Your task to perform on an android device: turn pop-ups on in chrome Image 0: 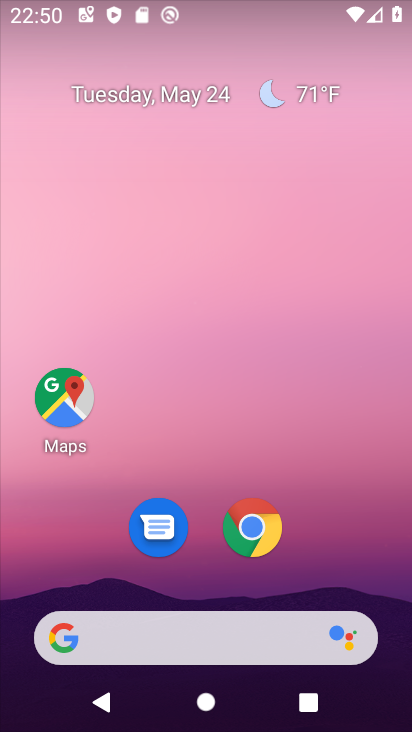
Step 0: click (239, 527)
Your task to perform on an android device: turn pop-ups on in chrome Image 1: 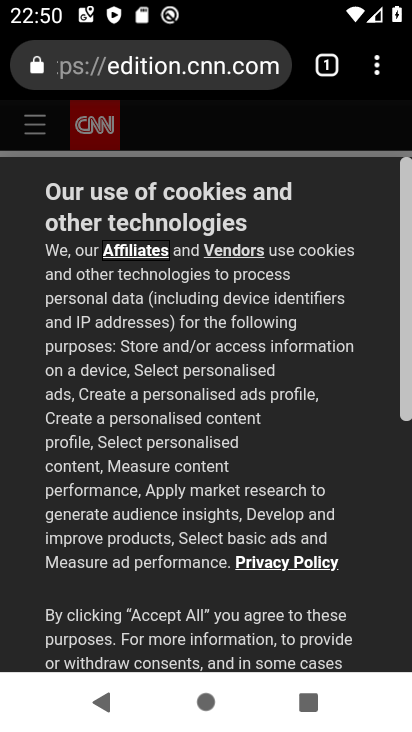
Step 1: click (370, 72)
Your task to perform on an android device: turn pop-ups on in chrome Image 2: 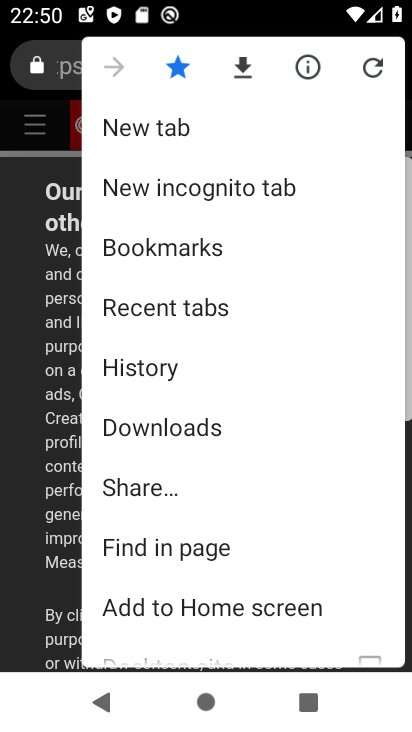
Step 2: drag from (209, 581) to (206, 344)
Your task to perform on an android device: turn pop-ups on in chrome Image 3: 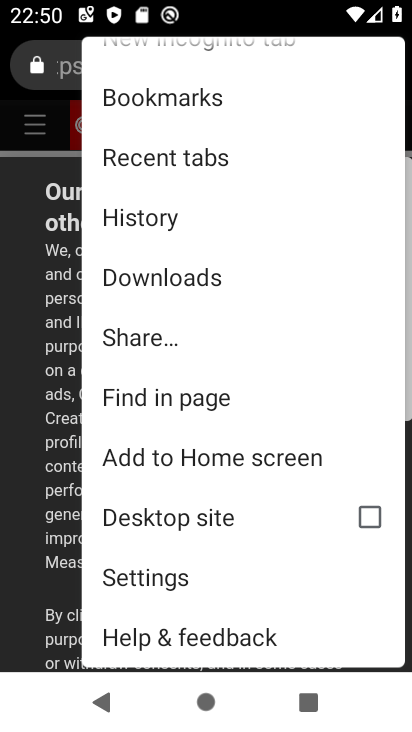
Step 3: click (190, 591)
Your task to perform on an android device: turn pop-ups on in chrome Image 4: 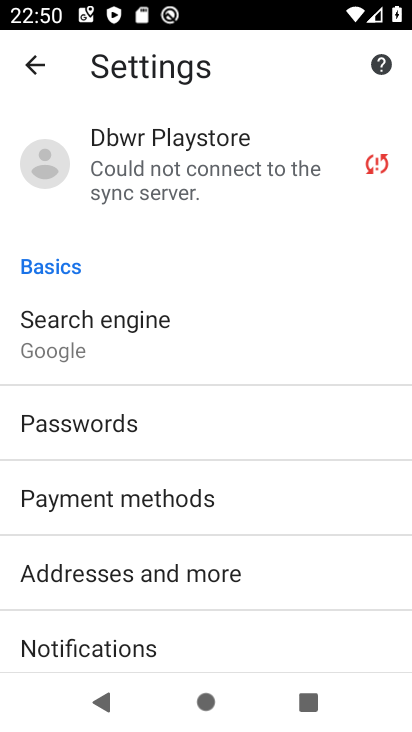
Step 4: drag from (159, 638) to (120, 402)
Your task to perform on an android device: turn pop-ups on in chrome Image 5: 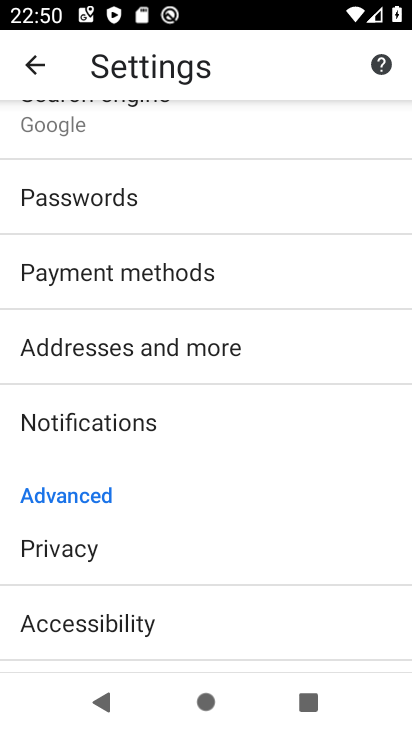
Step 5: drag from (84, 631) to (81, 292)
Your task to perform on an android device: turn pop-ups on in chrome Image 6: 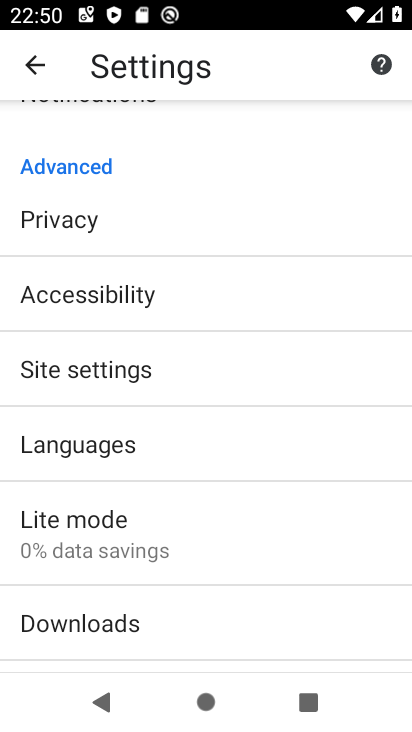
Step 6: click (114, 382)
Your task to perform on an android device: turn pop-ups on in chrome Image 7: 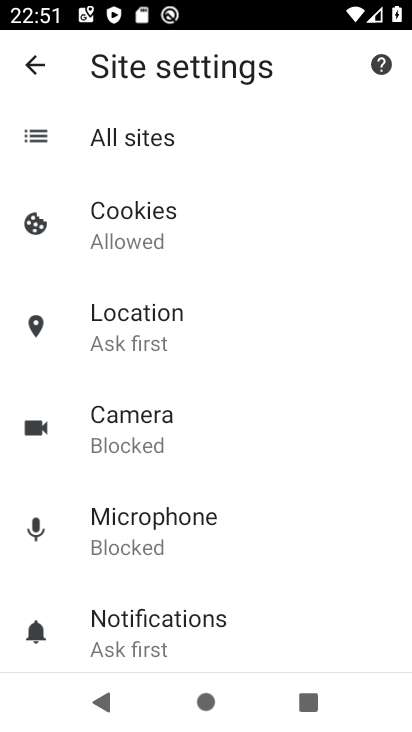
Step 7: drag from (152, 559) to (128, 334)
Your task to perform on an android device: turn pop-ups on in chrome Image 8: 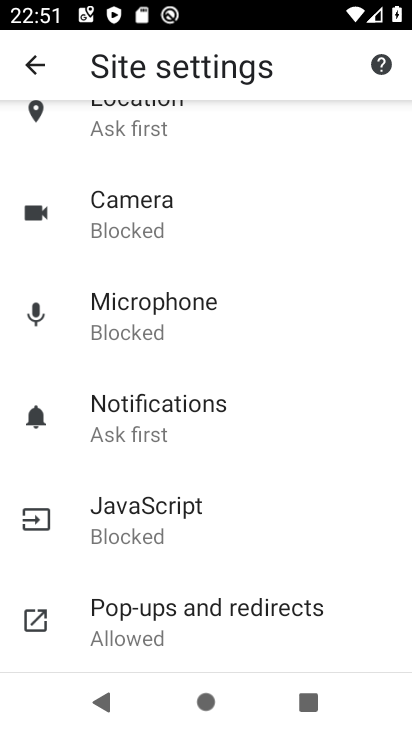
Step 8: click (128, 606)
Your task to perform on an android device: turn pop-ups on in chrome Image 9: 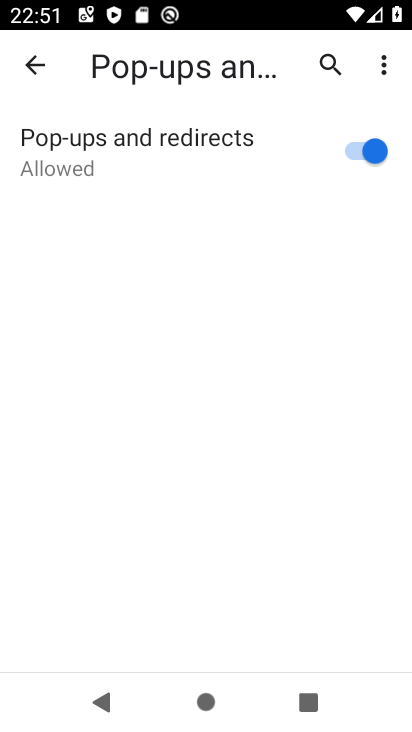
Step 9: task complete